Your task to perform on an android device: Open Google Chrome and open the bookmarks view Image 0: 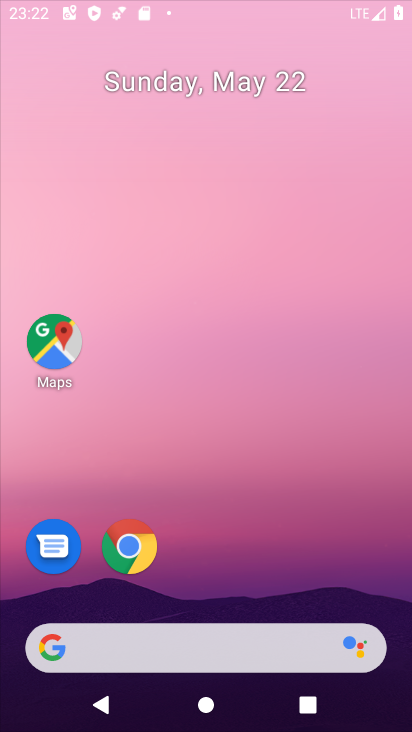
Step 0: click (348, 104)
Your task to perform on an android device: Open Google Chrome and open the bookmarks view Image 1: 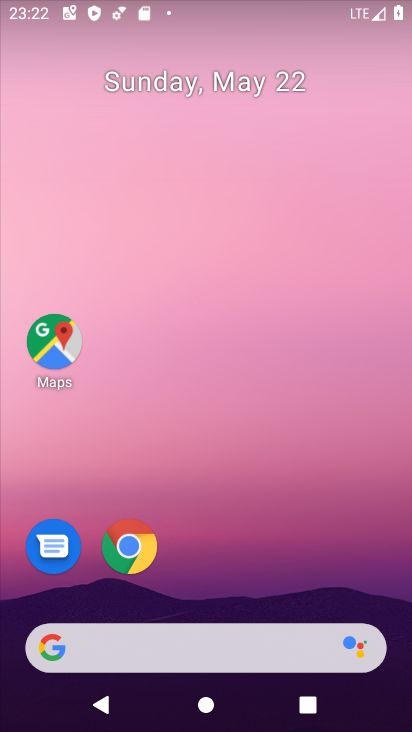
Step 1: drag from (193, 599) to (235, 107)
Your task to perform on an android device: Open Google Chrome and open the bookmarks view Image 2: 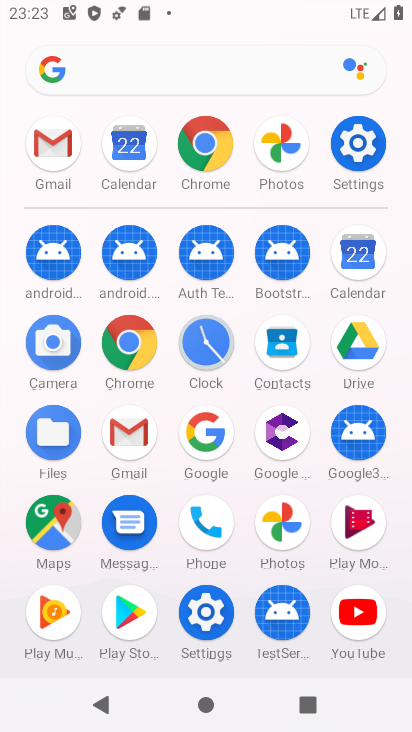
Step 2: click (211, 136)
Your task to perform on an android device: Open Google Chrome and open the bookmarks view Image 3: 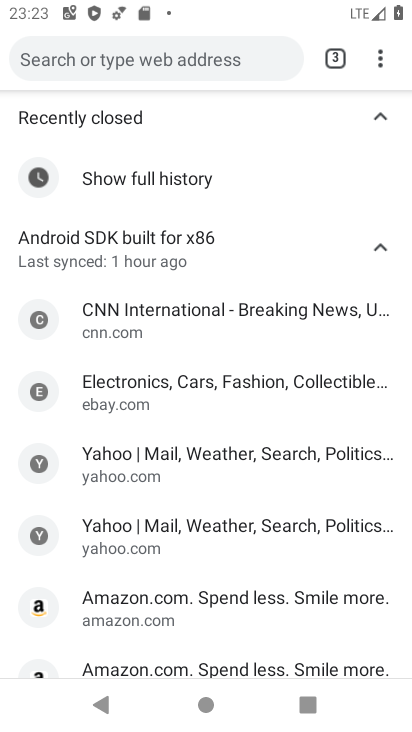
Step 3: drag from (138, 552) to (284, 67)
Your task to perform on an android device: Open Google Chrome and open the bookmarks view Image 4: 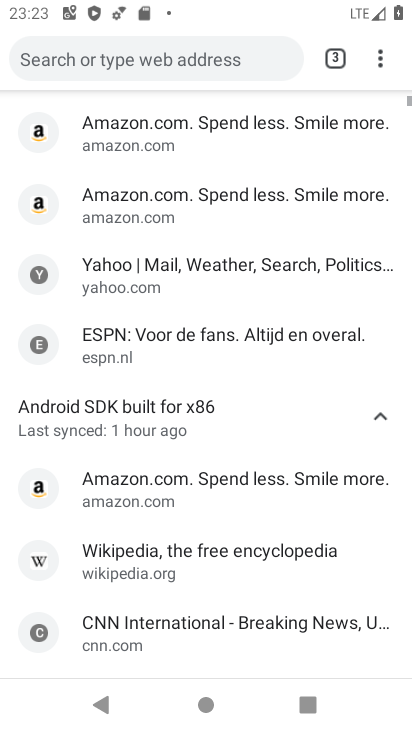
Step 4: drag from (271, 199) to (256, 722)
Your task to perform on an android device: Open Google Chrome and open the bookmarks view Image 5: 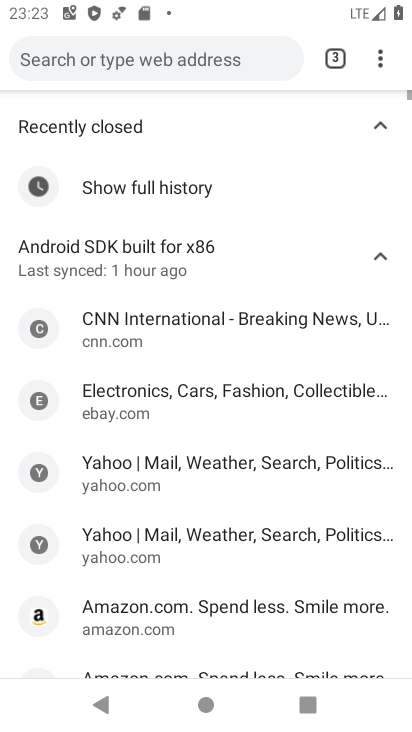
Step 5: drag from (232, 547) to (241, 613)
Your task to perform on an android device: Open Google Chrome and open the bookmarks view Image 6: 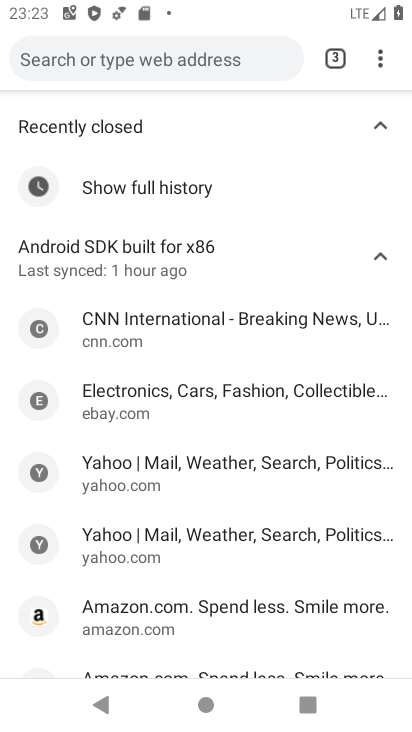
Step 6: drag from (184, 511) to (261, 333)
Your task to perform on an android device: Open Google Chrome and open the bookmarks view Image 7: 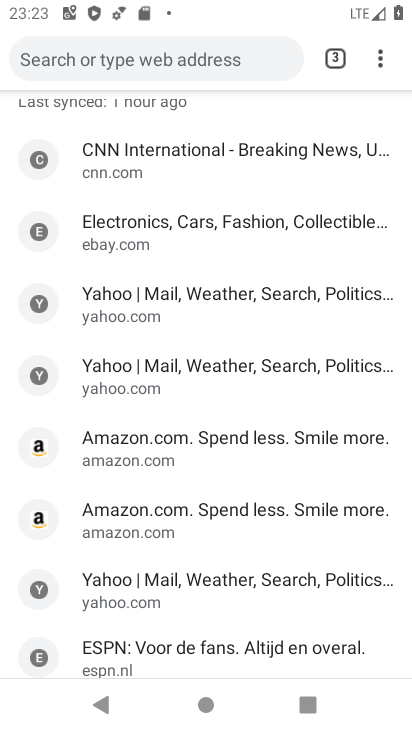
Step 7: click (378, 47)
Your task to perform on an android device: Open Google Chrome and open the bookmarks view Image 8: 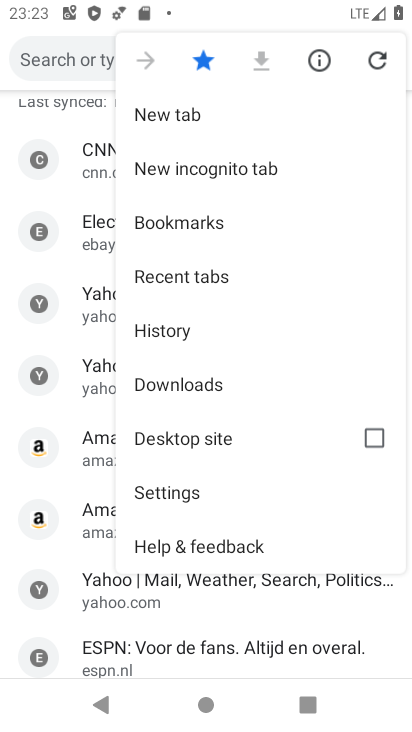
Step 8: click (215, 234)
Your task to perform on an android device: Open Google Chrome and open the bookmarks view Image 9: 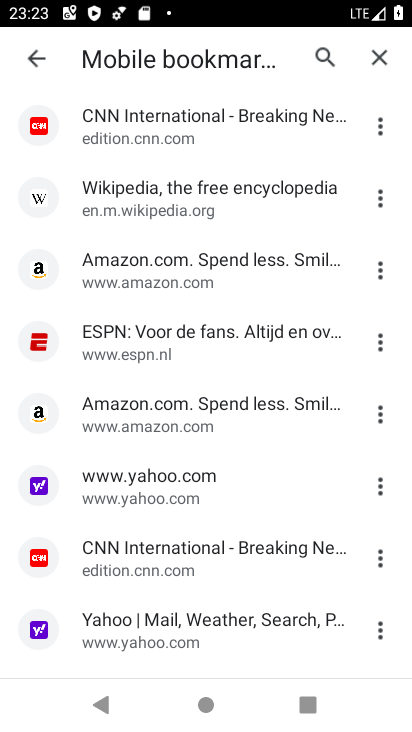
Step 9: task complete